Your task to perform on an android device: turn off location Image 0: 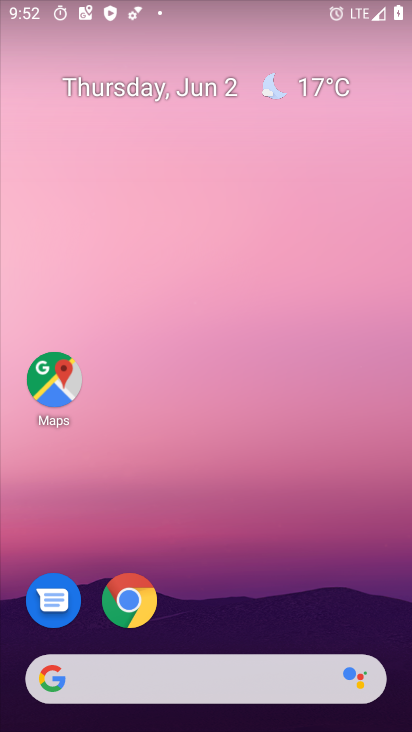
Step 0: drag from (367, 399) to (374, 196)
Your task to perform on an android device: turn off location Image 1: 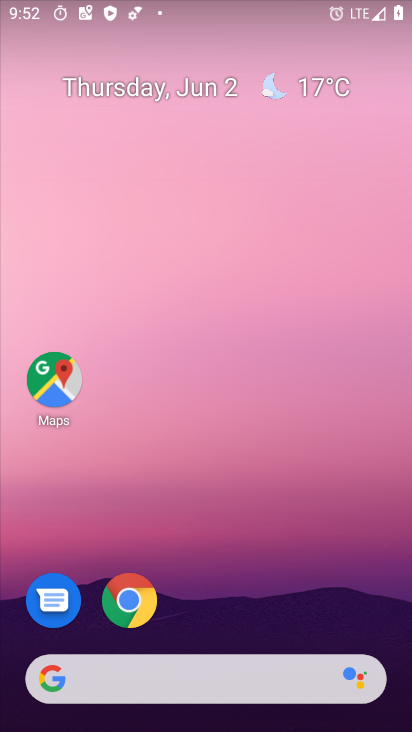
Step 1: drag from (368, 601) to (382, 94)
Your task to perform on an android device: turn off location Image 2: 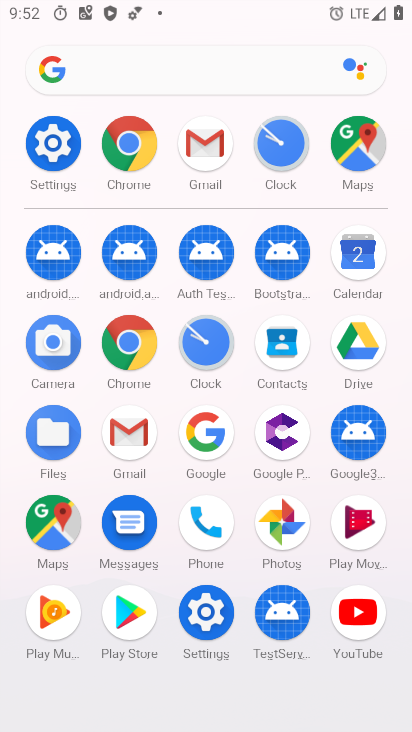
Step 2: click (214, 624)
Your task to perform on an android device: turn off location Image 3: 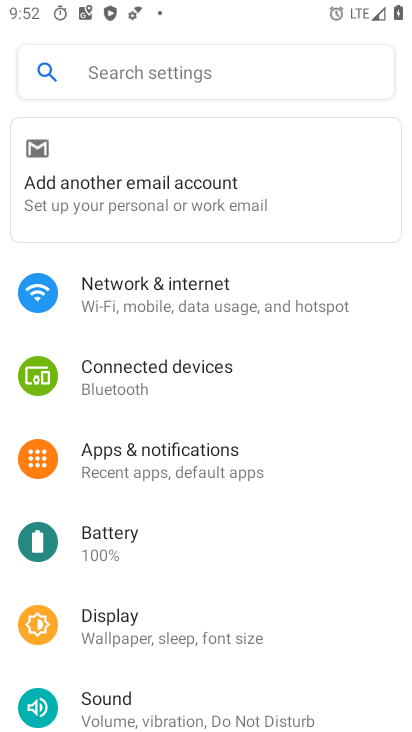
Step 3: drag from (354, 523) to (360, 438)
Your task to perform on an android device: turn off location Image 4: 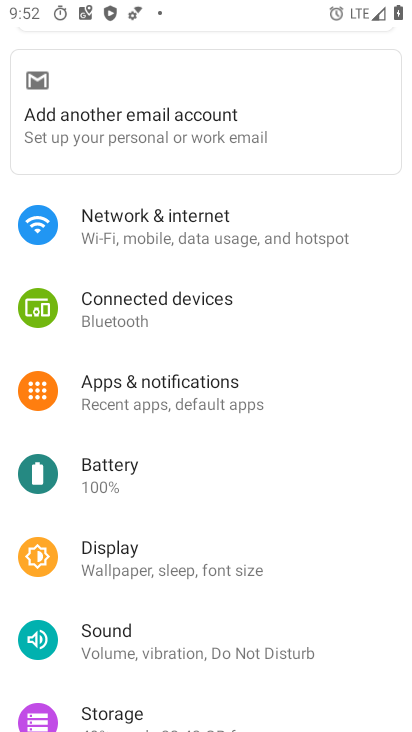
Step 4: drag from (364, 547) to (373, 400)
Your task to perform on an android device: turn off location Image 5: 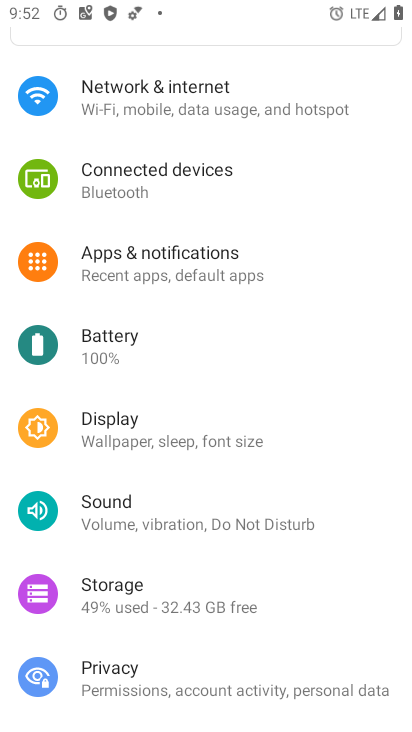
Step 5: drag from (363, 592) to (367, 445)
Your task to perform on an android device: turn off location Image 6: 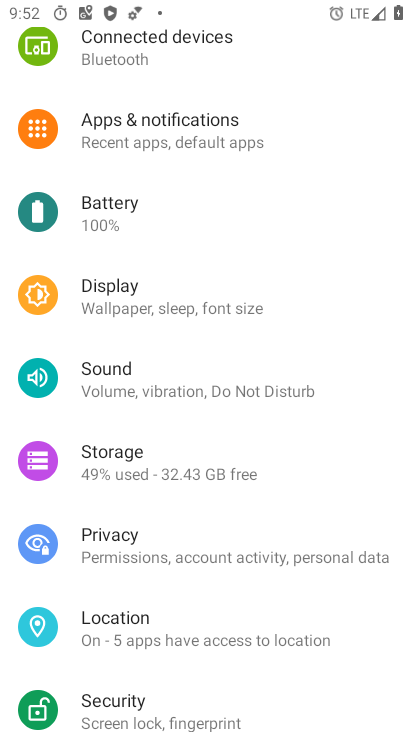
Step 6: drag from (364, 606) to (361, 400)
Your task to perform on an android device: turn off location Image 7: 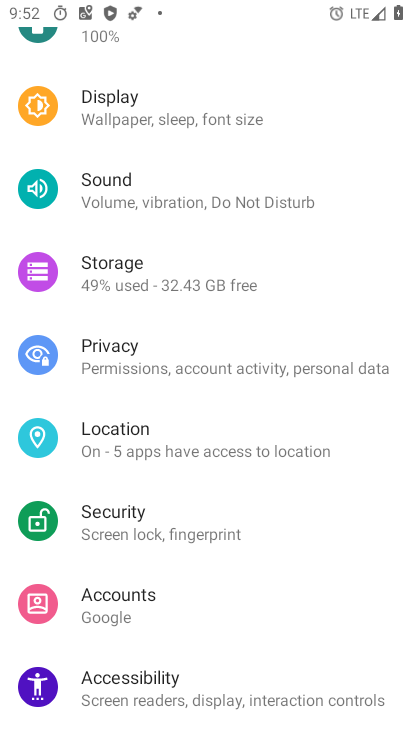
Step 7: drag from (365, 520) to (353, 390)
Your task to perform on an android device: turn off location Image 8: 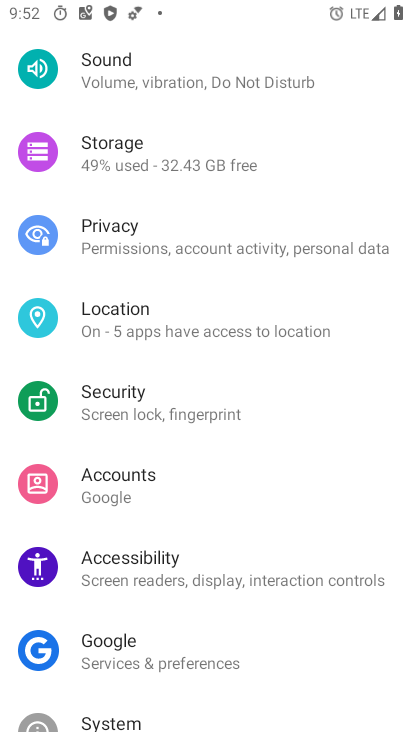
Step 8: click (284, 344)
Your task to perform on an android device: turn off location Image 9: 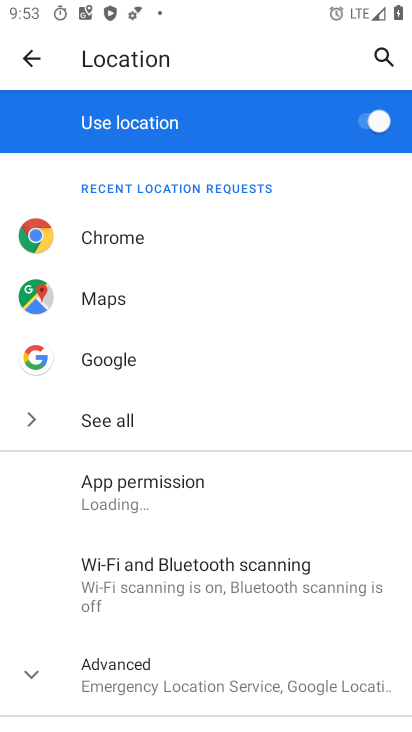
Step 9: click (380, 129)
Your task to perform on an android device: turn off location Image 10: 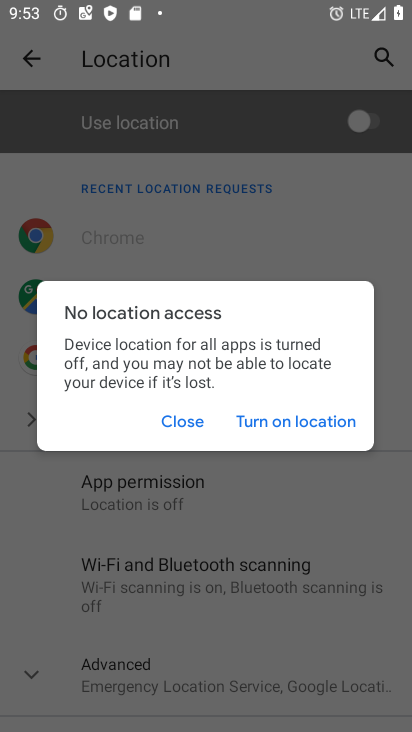
Step 10: task complete